Your task to perform on an android device: Open settings Image 0: 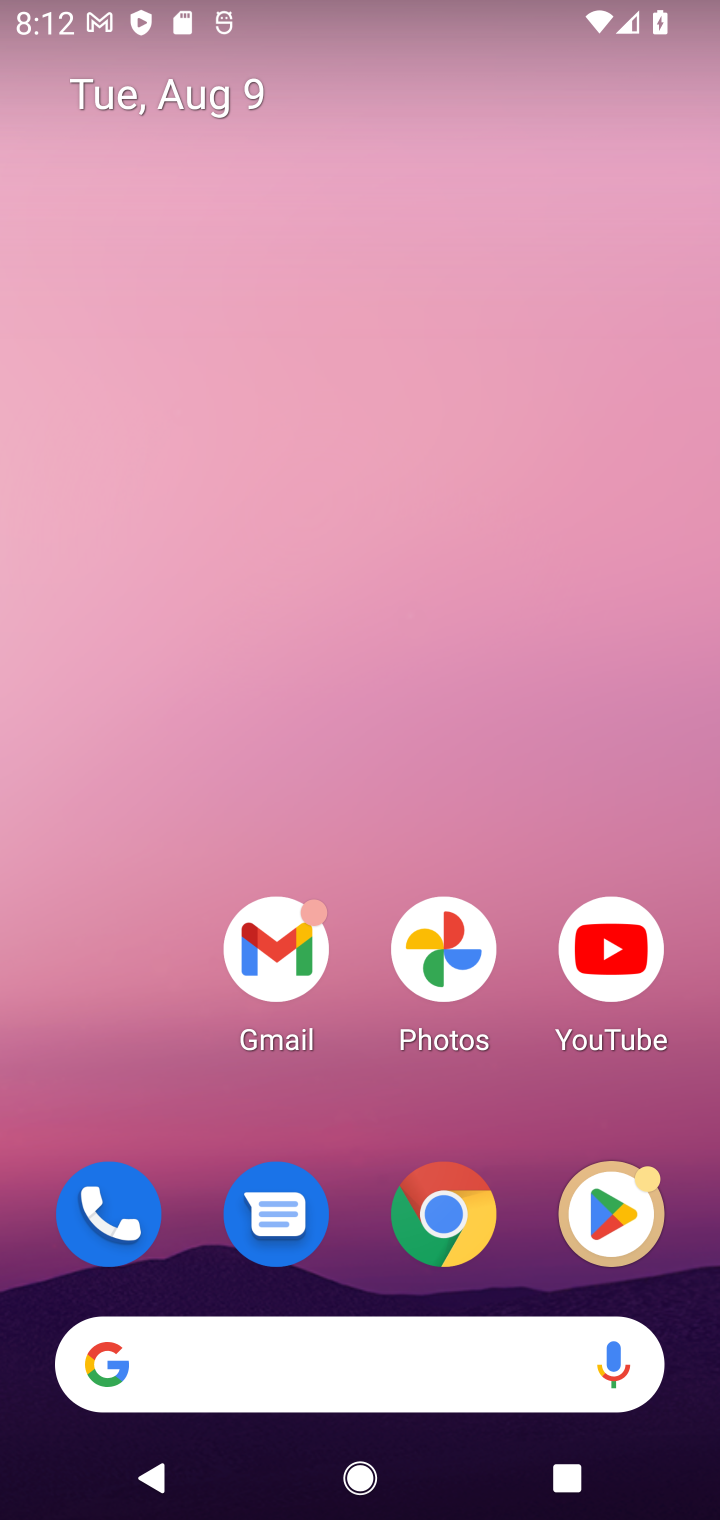
Step 0: drag from (64, 1435) to (619, 341)
Your task to perform on an android device: Open settings Image 1: 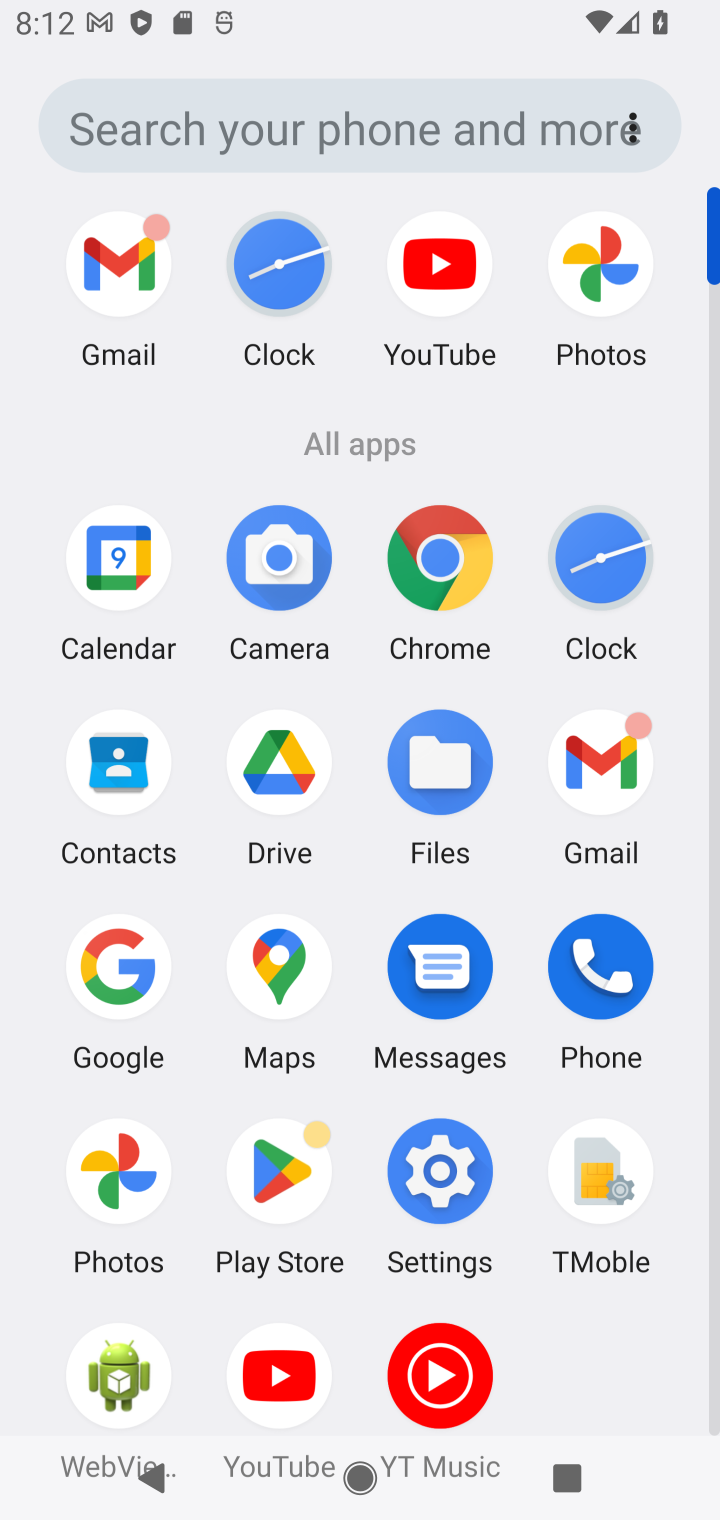
Step 1: click (457, 1194)
Your task to perform on an android device: Open settings Image 2: 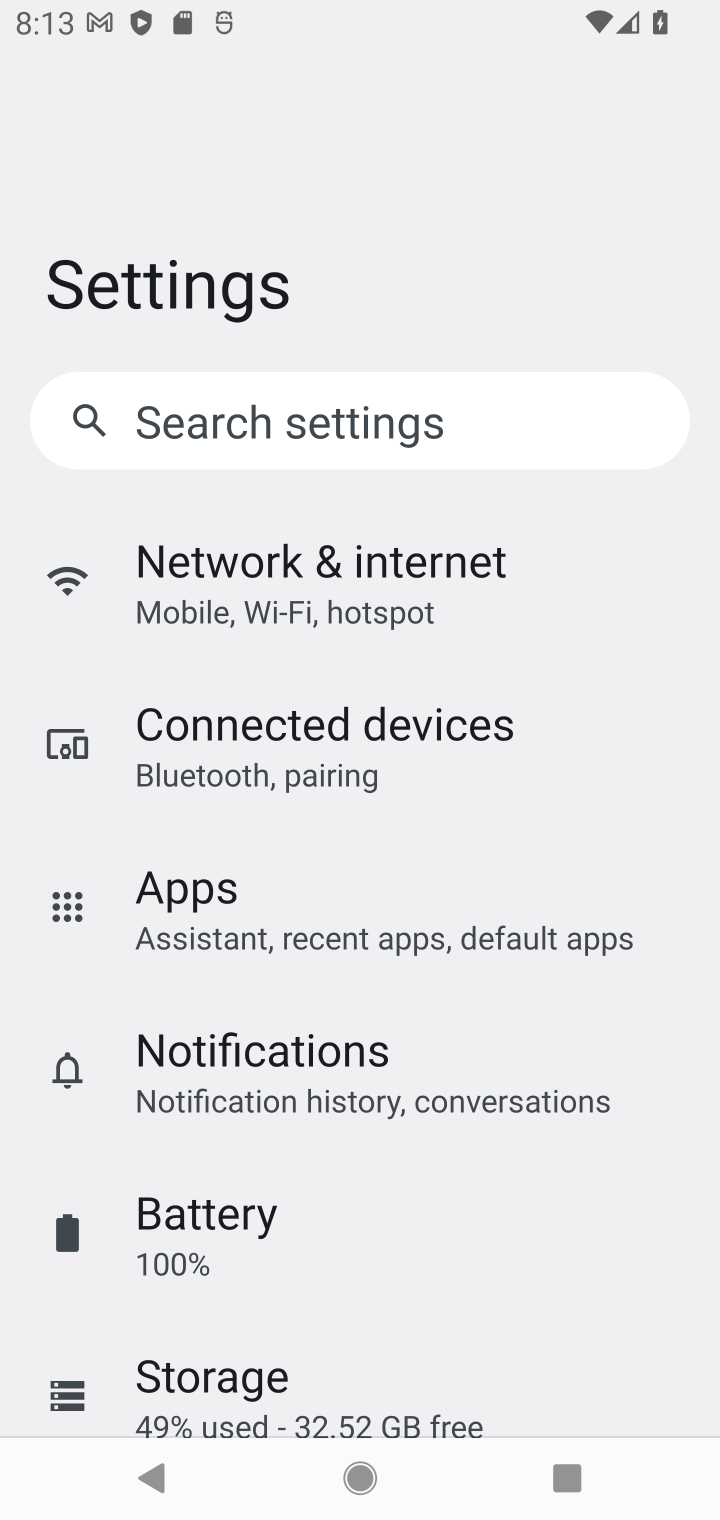
Step 2: task complete